Your task to perform on an android device: Show me productivity apps on the Play Store Image 0: 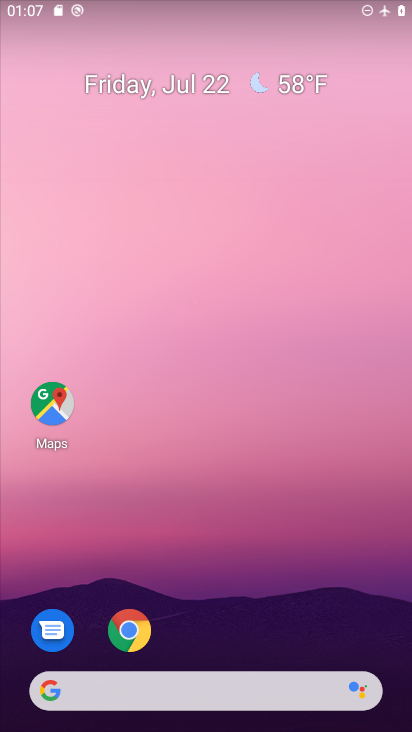
Step 0: drag from (305, 609) to (386, 67)
Your task to perform on an android device: Show me productivity apps on the Play Store Image 1: 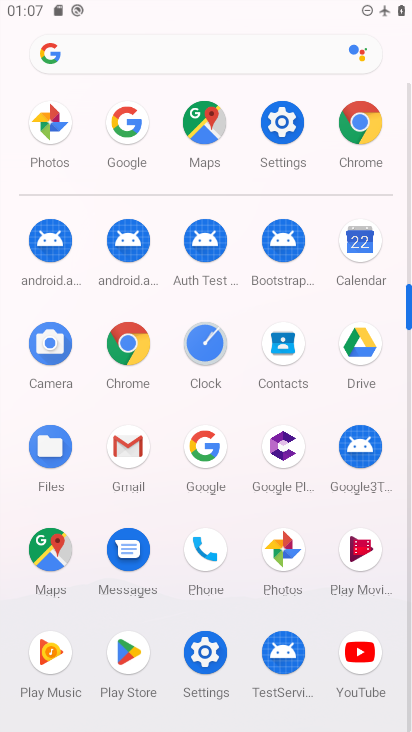
Step 1: click (135, 653)
Your task to perform on an android device: Show me productivity apps on the Play Store Image 2: 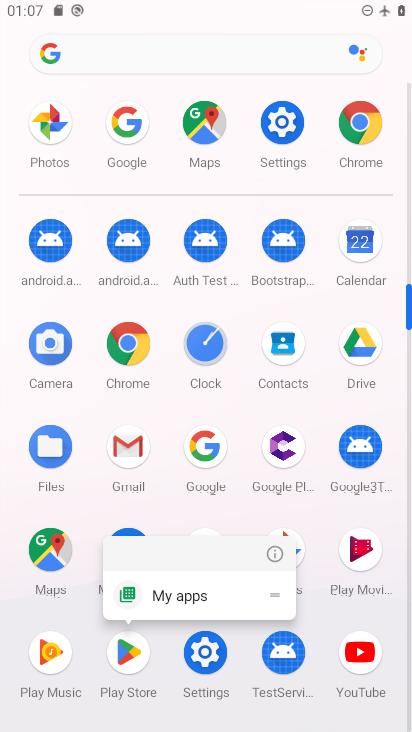
Step 2: click (122, 659)
Your task to perform on an android device: Show me productivity apps on the Play Store Image 3: 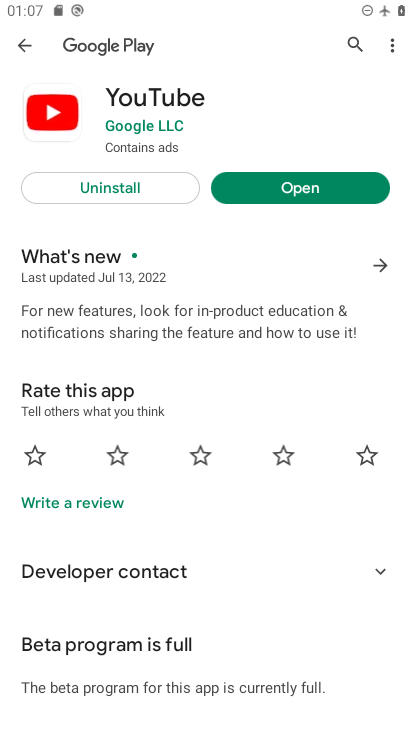
Step 3: drag from (318, 12) to (207, 676)
Your task to perform on an android device: Show me productivity apps on the Play Store Image 4: 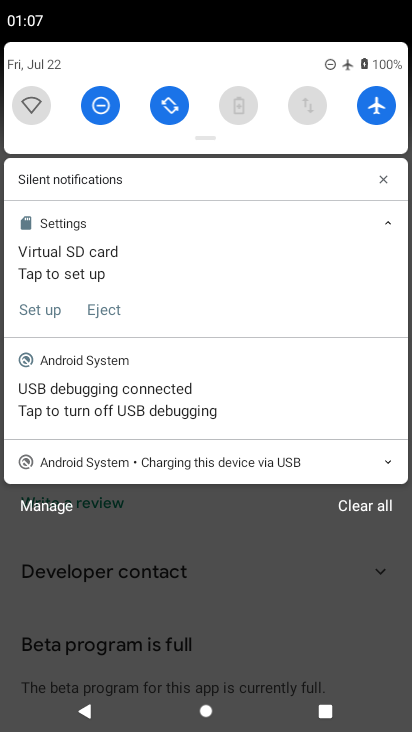
Step 4: click (375, 116)
Your task to perform on an android device: Show me productivity apps on the Play Store Image 5: 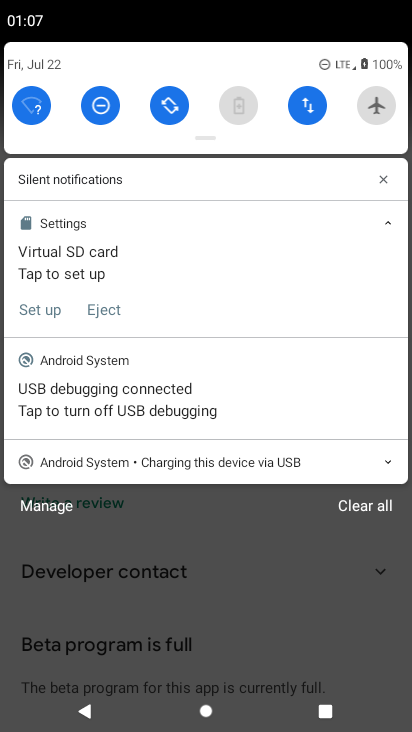
Step 5: drag from (296, 554) to (407, 433)
Your task to perform on an android device: Show me productivity apps on the Play Store Image 6: 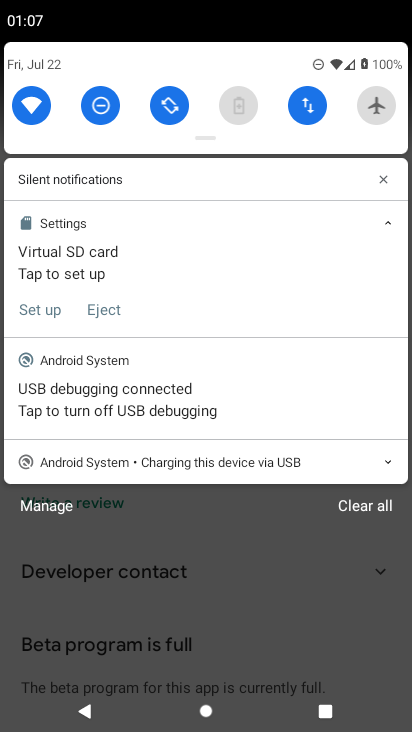
Step 6: drag from (259, 620) to (377, 4)
Your task to perform on an android device: Show me productivity apps on the Play Store Image 7: 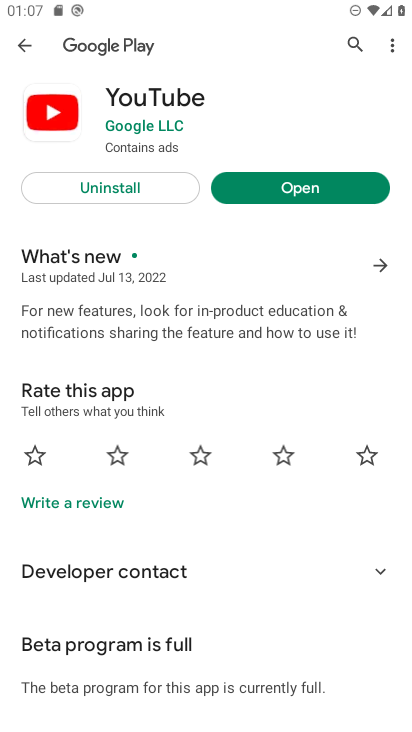
Step 7: click (17, 40)
Your task to perform on an android device: Show me productivity apps on the Play Store Image 8: 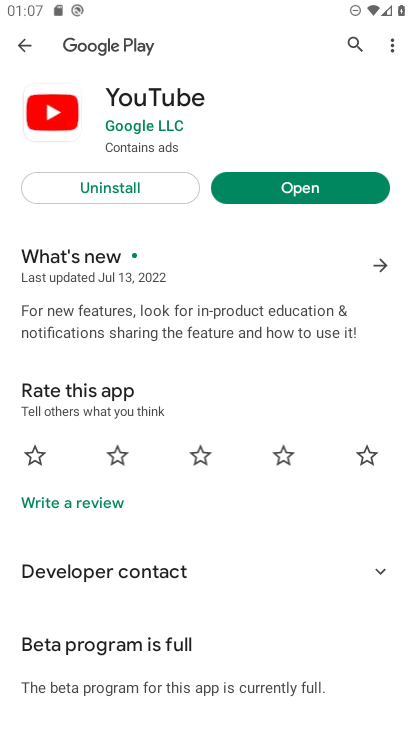
Step 8: click (20, 44)
Your task to perform on an android device: Show me productivity apps on the Play Store Image 9: 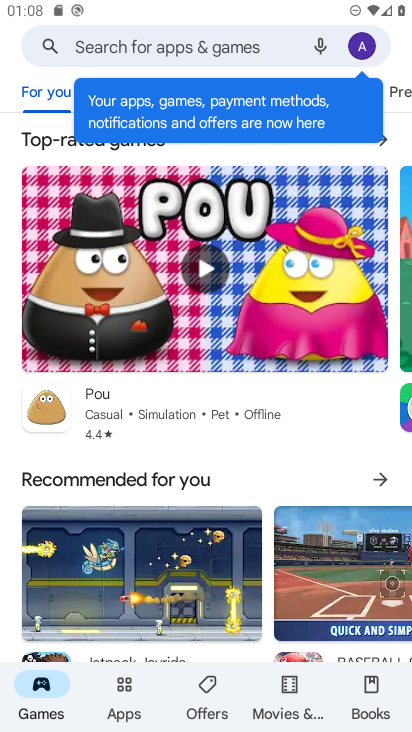
Step 9: click (206, 41)
Your task to perform on an android device: Show me productivity apps on the Play Store Image 10: 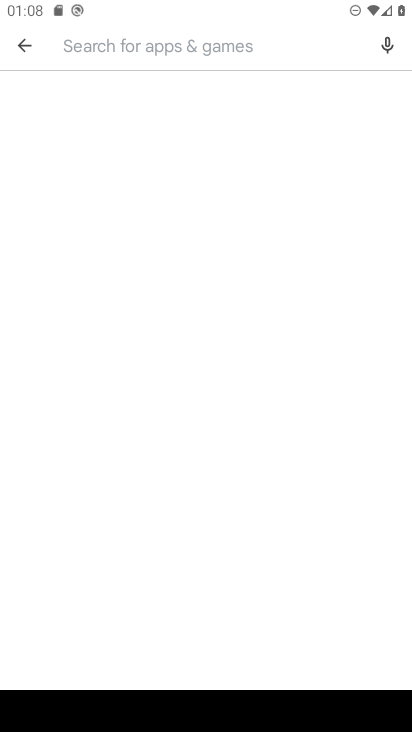
Step 10: type " productivity apps"
Your task to perform on an android device: Show me productivity apps on the Play Store Image 11: 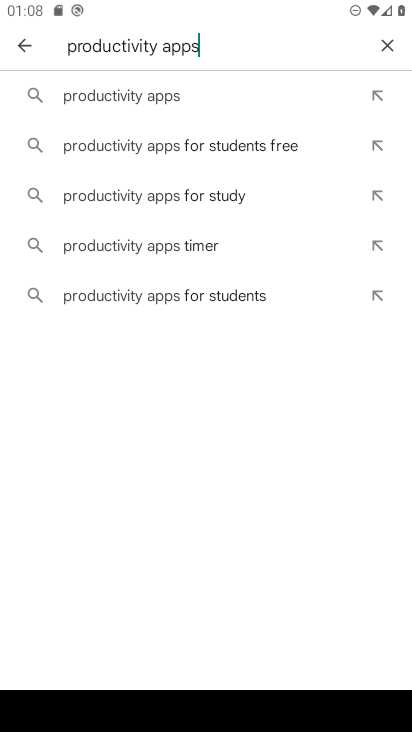
Step 11: click (139, 97)
Your task to perform on an android device: Show me productivity apps on the Play Store Image 12: 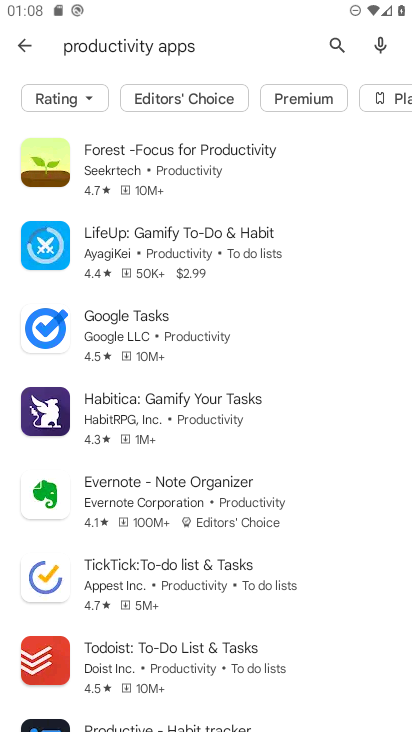
Step 12: task complete